Your task to perform on an android device: Open Chrome and go to the settings page Image 0: 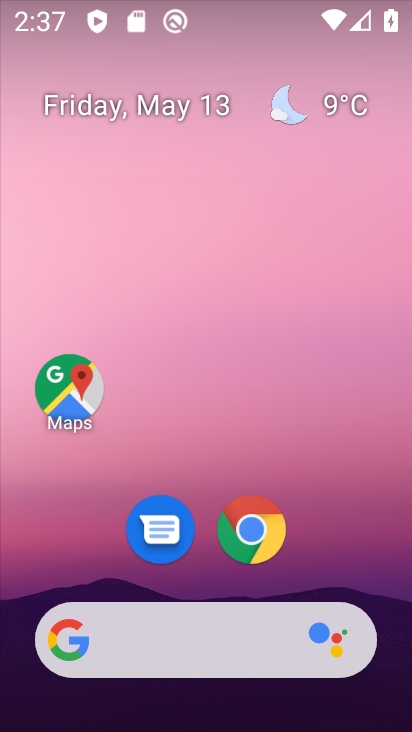
Step 0: click (249, 546)
Your task to perform on an android device: Open Chrome and go to the settings page Image 1: 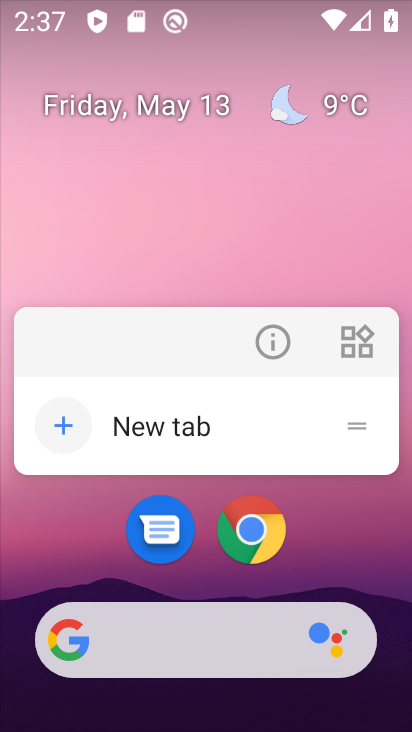
Step 1: click (252, 538)
Your task to perform on an android device: Open Chrome and go to the settings page Image 2: 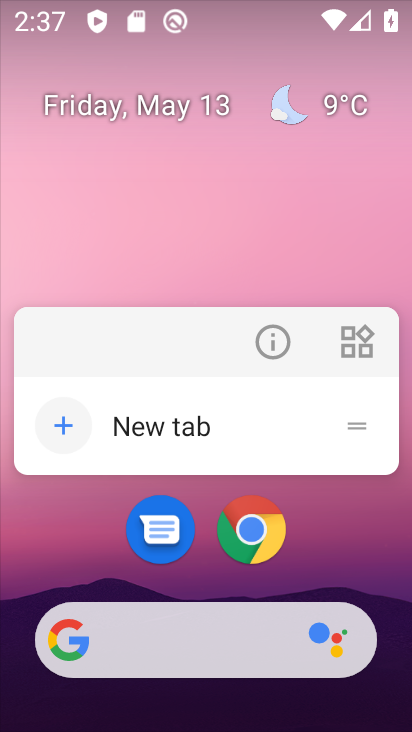
Step 2: click (250, 536)
Your task to perform on an android device: Open Chrome and go to the settings page Image 3: 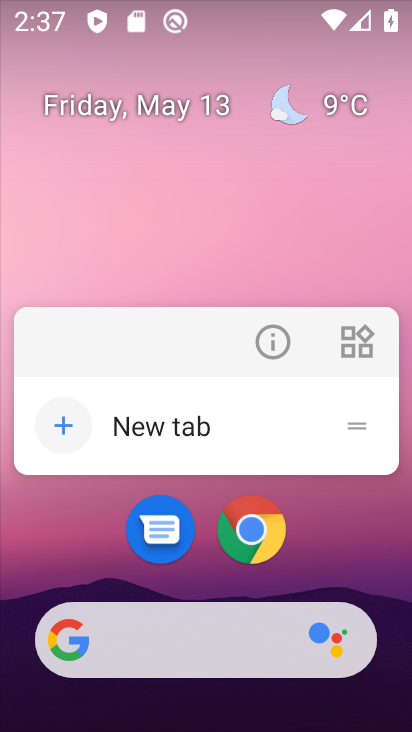
Step 3: click (277, 530)
Your task to perform on an android device: Open Chrome and go to the settings page Image 4: 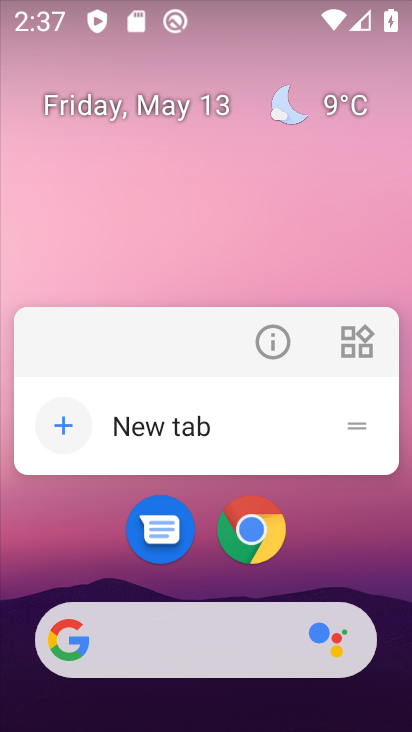
Step 4: click (277, 523)
Your task to perform on an android device: Open Chrome and go to the settings page Image 5: 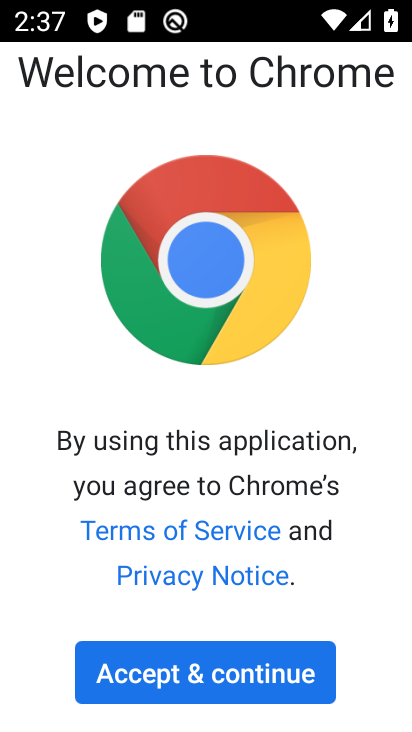
Step 5: click (275, 668)
Your task to perform on an android device: Open Chrome and go to the settings page Image 6: 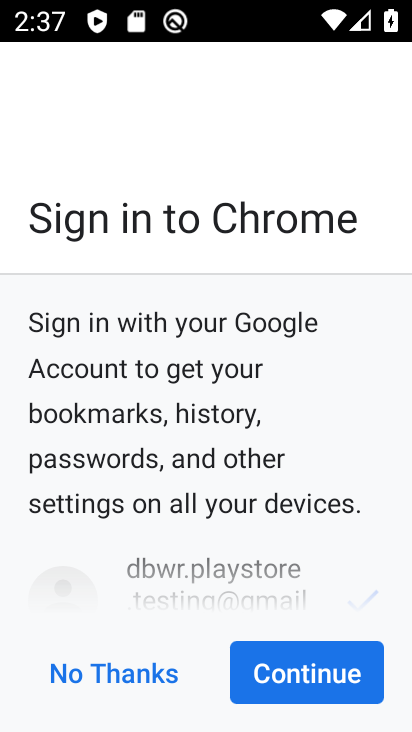
Step 6: click (324, 675)
Your task to perform on an android device: Open Chrome and go to the settings page Image 7: 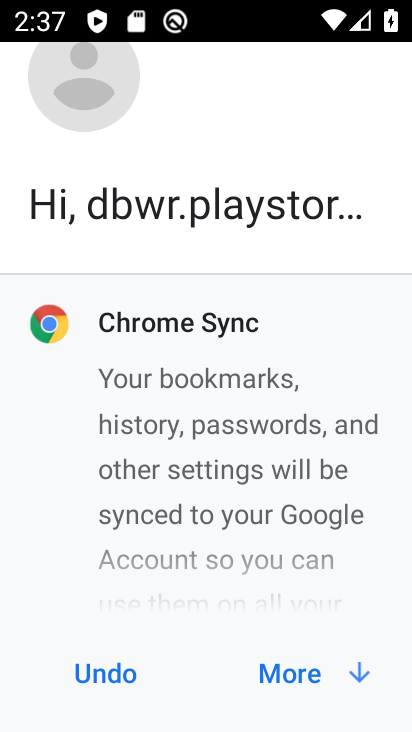
Step 7: click (324, 675)
Your task to perform on an android device: Open Chrome and go to the settings page Image 8: 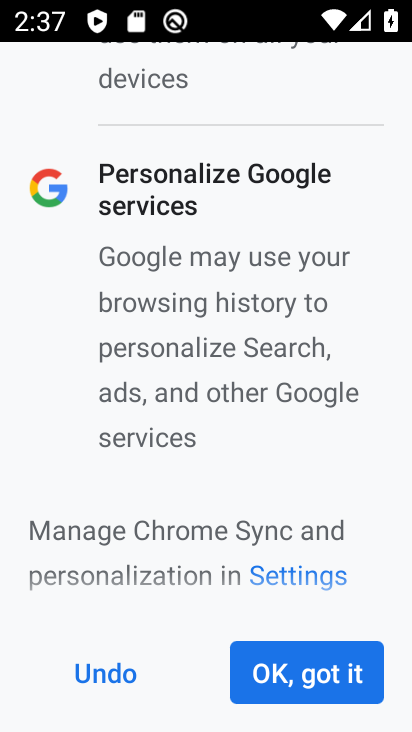
Step 8: click (324, 675)
Your task to perform on an android device: Open Chrome and go to the settings page Image 9: 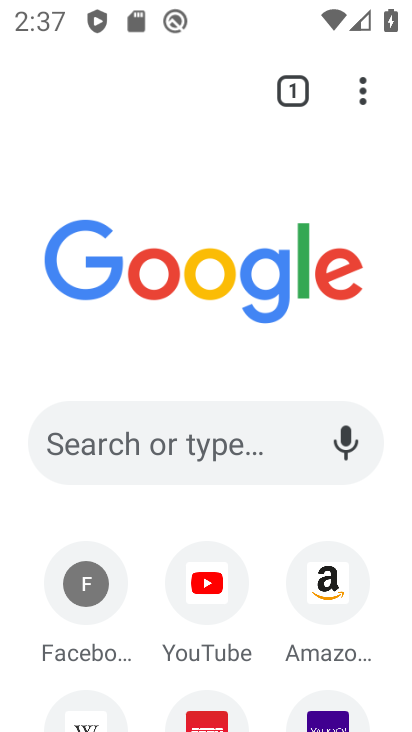
Step 9: task complete